Your task to perform on an android device: Go to display settings Image 0: 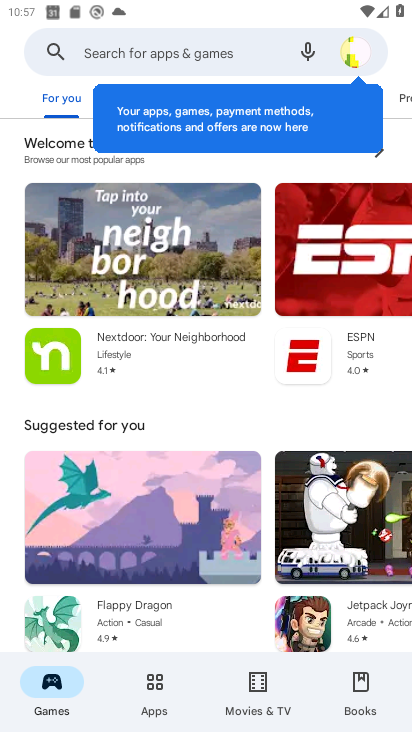
Step 0: press back button
Your task to perform on an android device: Go to display settings Image 1: 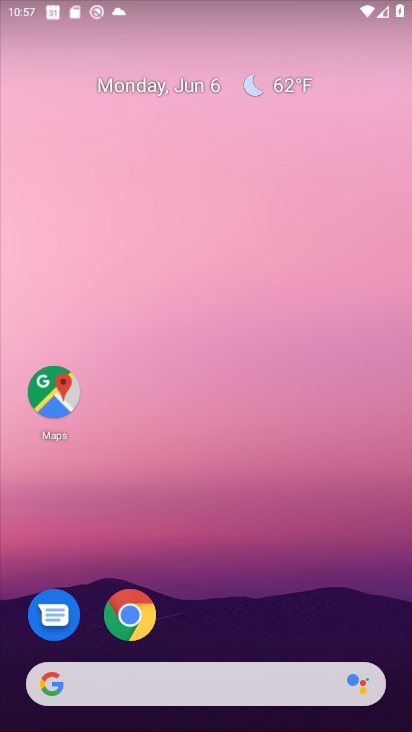
Step 1: drag from (254, 643) to (150, 89)
Your task to perform on an android device: Go to display settings Image 2: 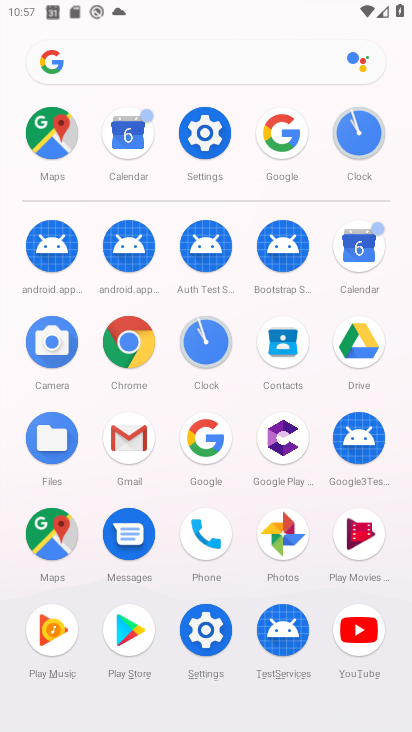
Step 2: click (184, 150)
Your task to perform on an android device: Go to display settings Image 3: 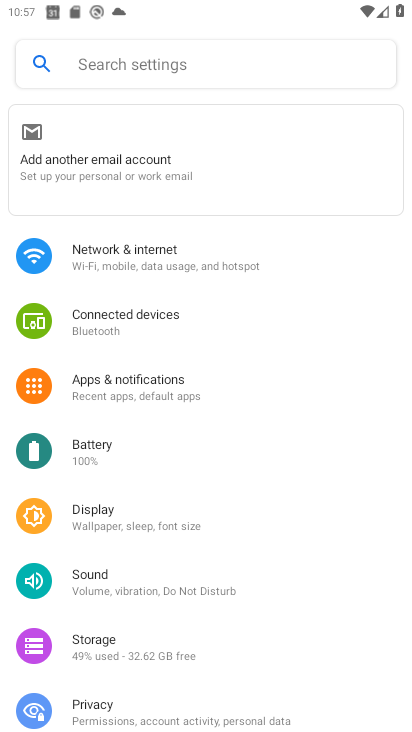
Step 3: click (96, 516)
Your task to perform on an android device: Go to display settings Image 4: 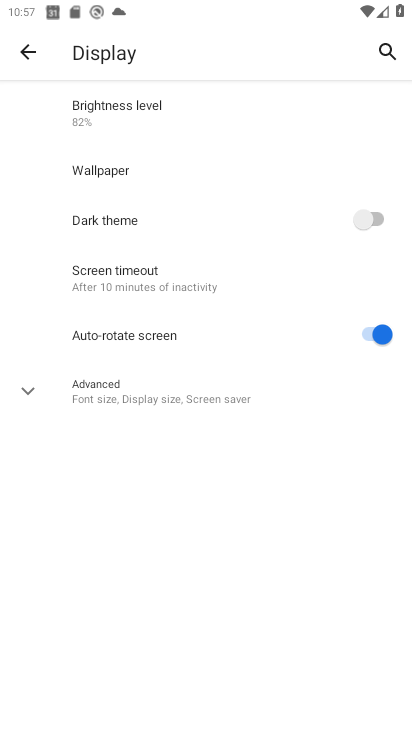
Step 4: task complete